Your task to perform on an android device: set default search engine in the chrome app Image 0: 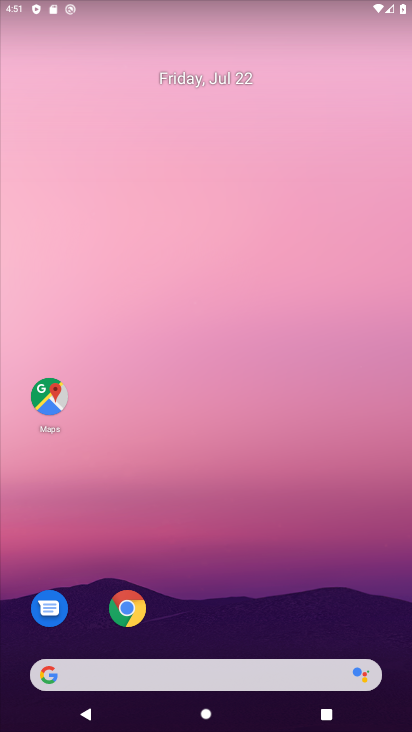
Step 0: click (136, 598)
Your task to perform on an android device: set default search engine in the chrome app Image 1: 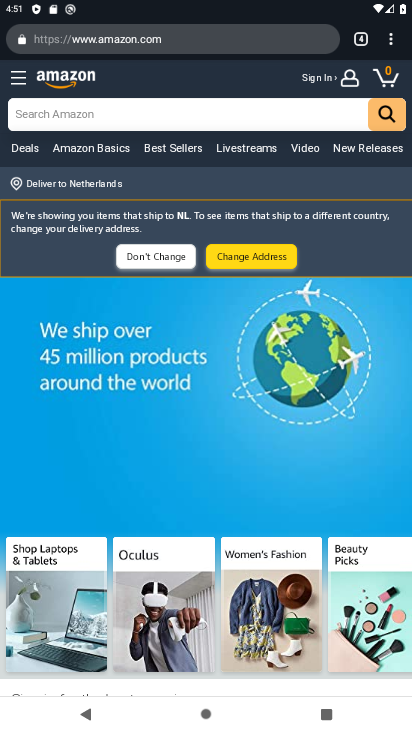
Step 1: click (393, 42)
Your task to perform on an android device: set default search engine in the chrome app Image 2: 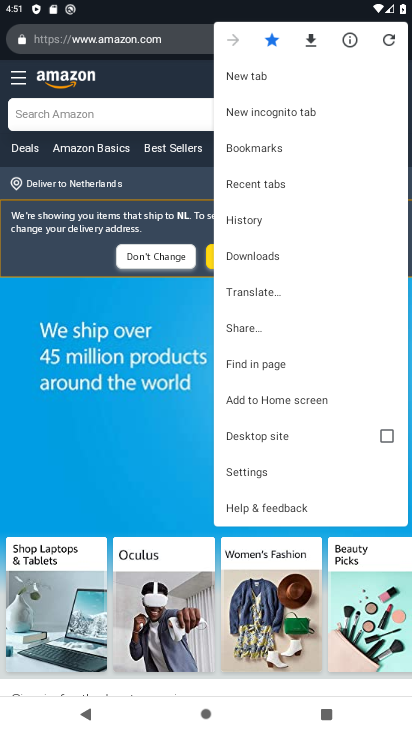
Step 2: click (242, 489)
Your task to perform on an android device: set default search engine in the chrome app Image 3: 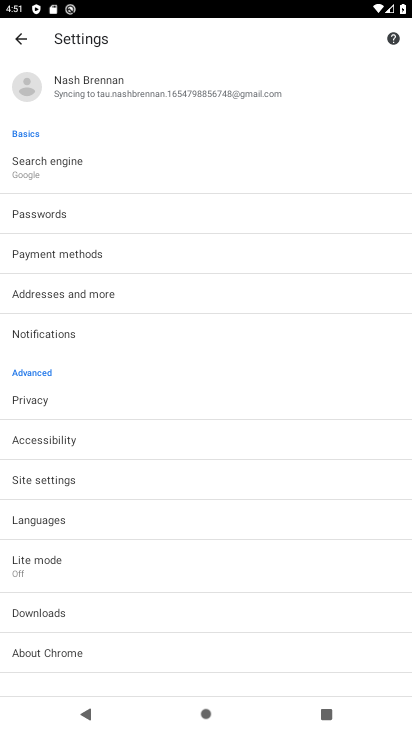
Step 3: click (93, 176)
Your task to perform on an android device: set default search engine in the chrome app Image 4: 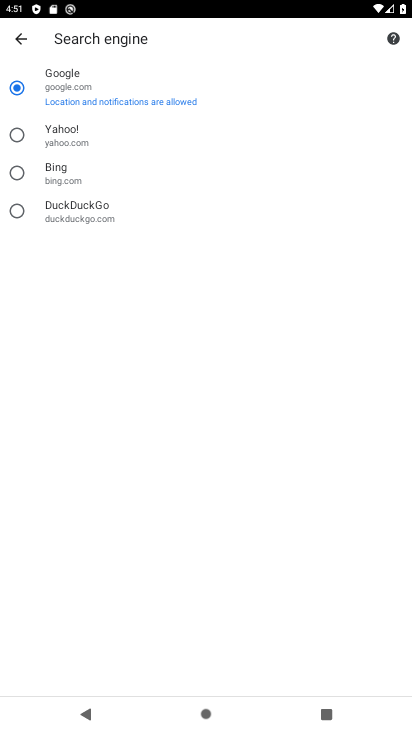
Step 4: click (96, 175)
Your task to perform on an android device: set default search engine in the chrome app Image 5: 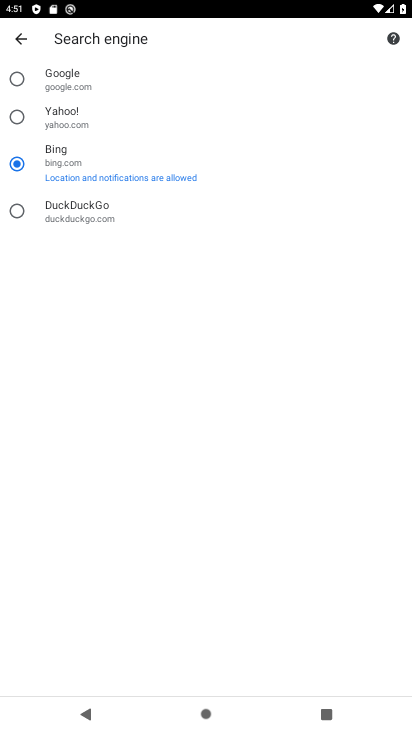
Step 5: task complete